Your task to perform on an android device: Go to Wikipedia Image 0: 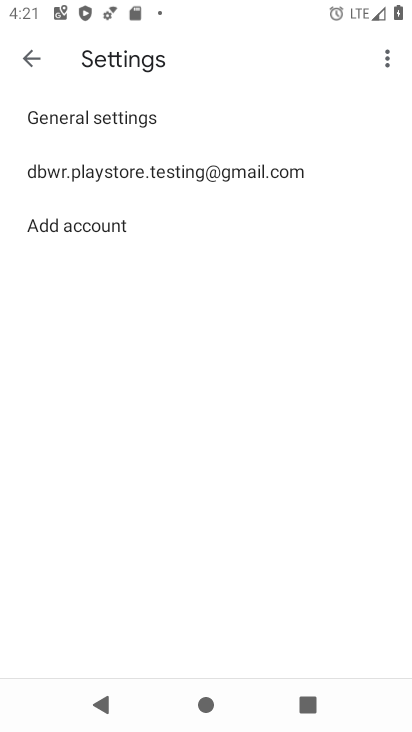
Step 0: press home button
Your task to perform on an android device: Go to Wikipedia Image 1: 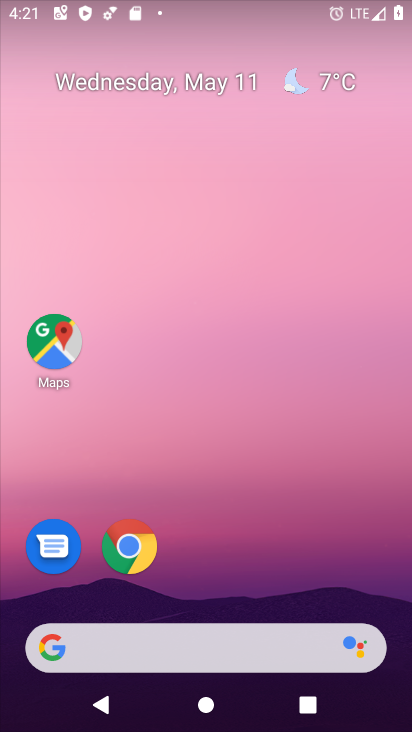
Step 1: drag from (255, 614) to (410, 270)
Your task to perform on an android device: Go to Wikipedia Image 2: 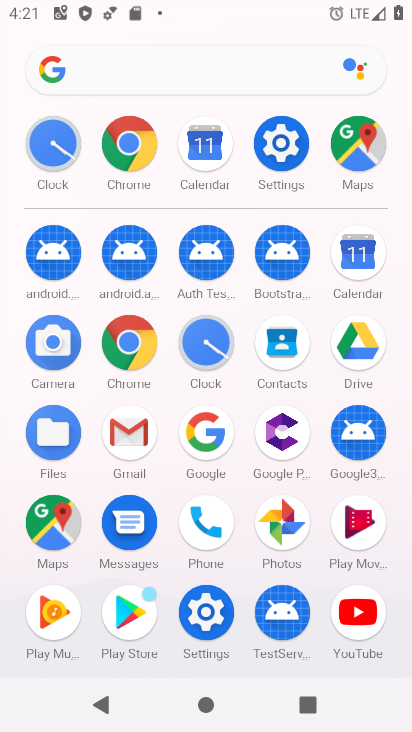
Step 2: click (120, 339)
Your task to perform on an android device: Go to Wikipedia Image 3: 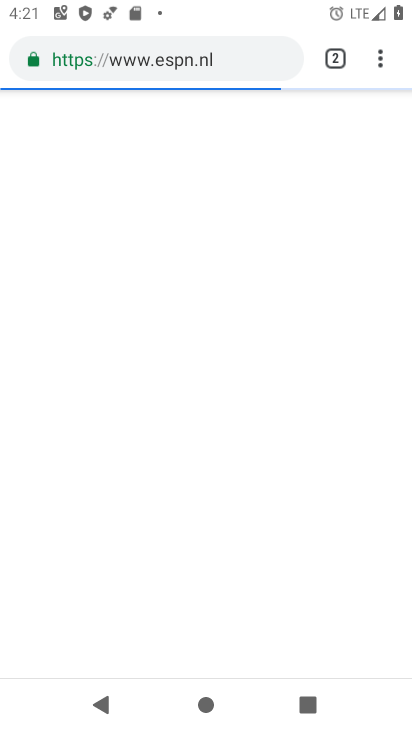
Step 3: click (241, 64)
Your task to perform on an android device: Go to Wikipedia Image 4: 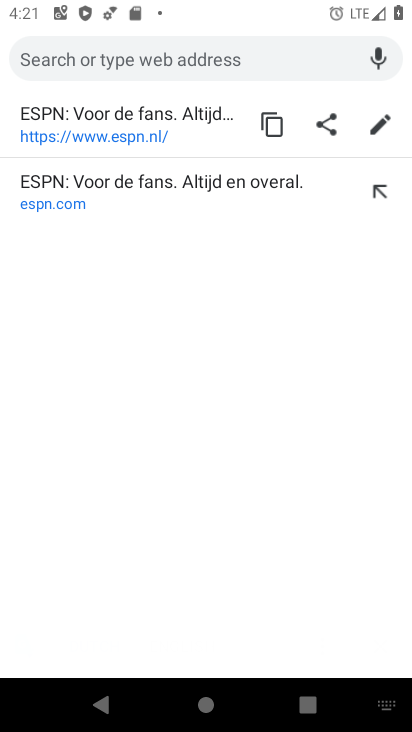
Step 4: type "wikipedia"
Your task to perform on an android device: Go to Wikipedia Image 5: 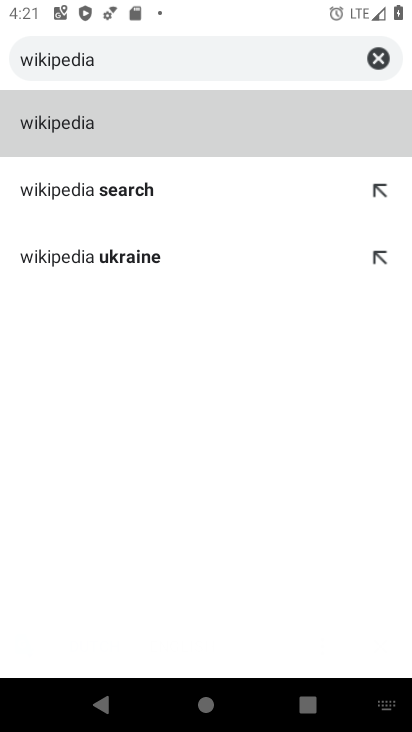
Step 5: click (188, 119)
Your task to perform on an android device: Go to Wikipedia Image 6: 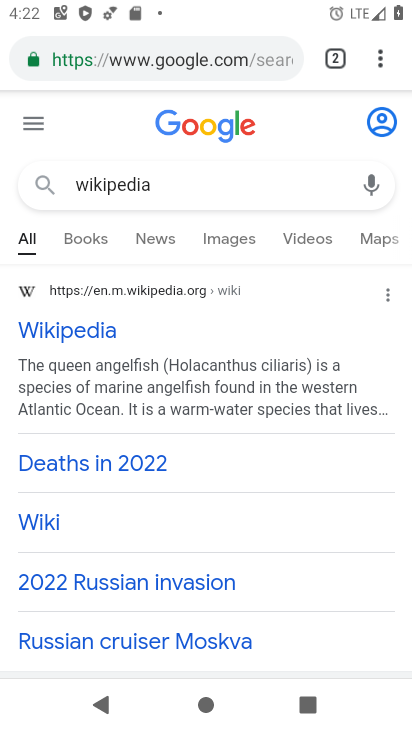
Step 6: task complete